Your task to perform on an android device: open app "Microsoft Excel" (install if not already installed) and go to login screen Image 0: 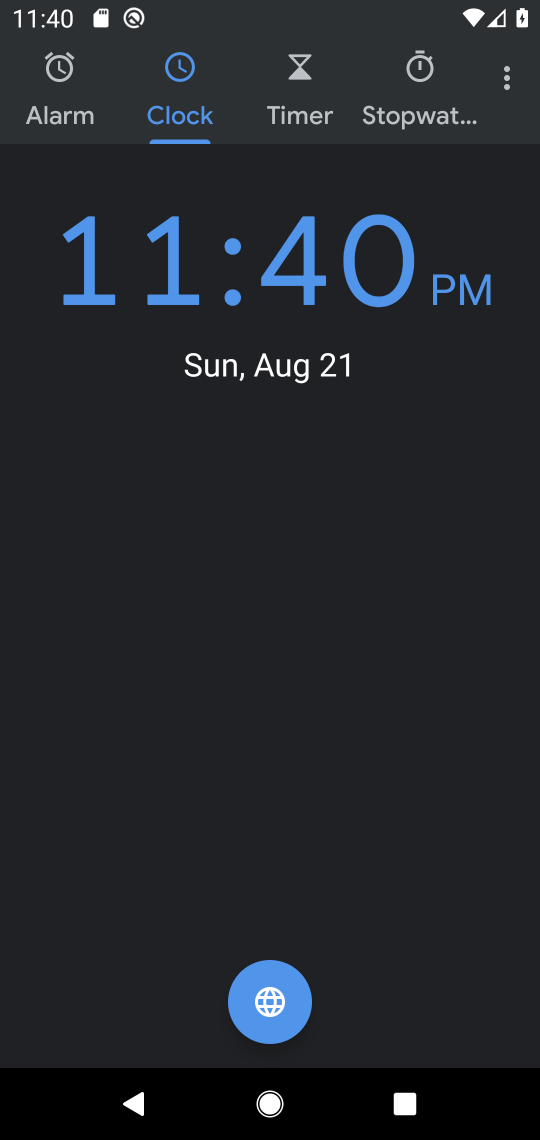
Step 0: press home button
Your task to perform on an android device: open app "Microsoft Excel" (install if not already installed) and go to login screen Image 1: 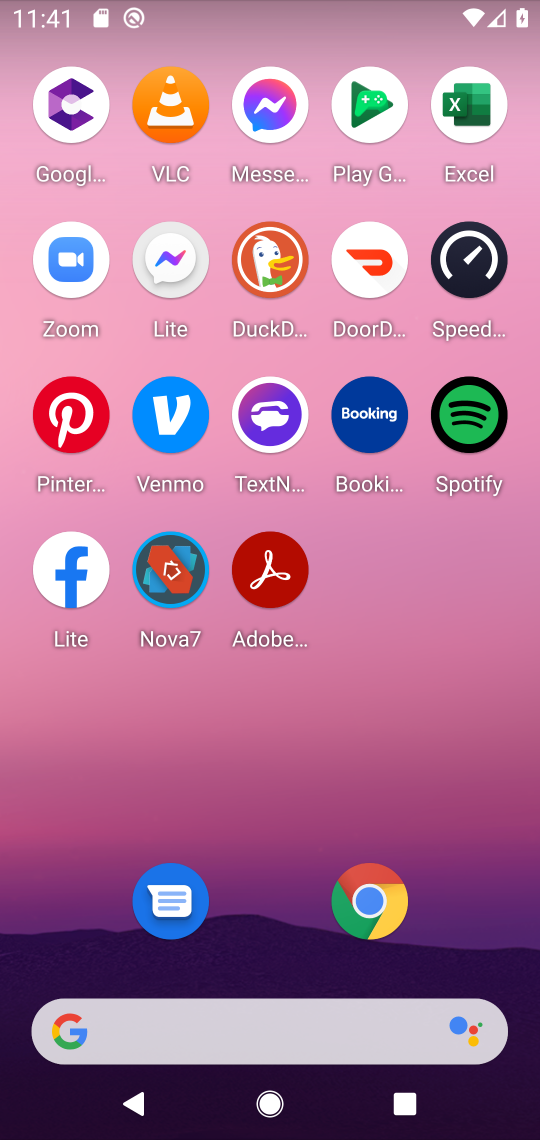
Step 1: click (441, 114)
Your task to perform on an android device: open app "Microsoft Excel" (install if not already installed) and go to login screen Image 2: 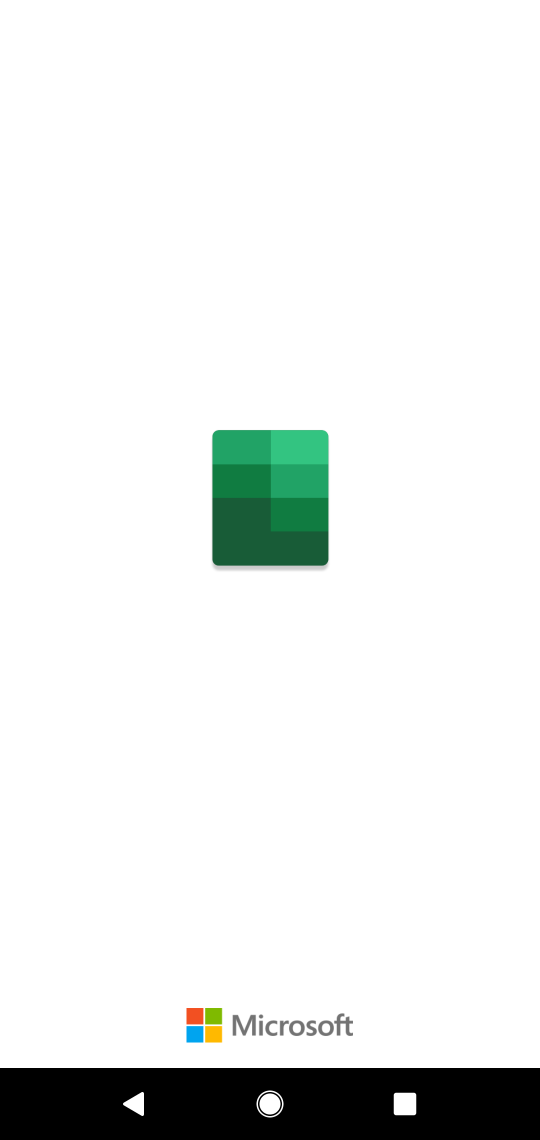
Step 2: task complete